Your task to perform on an android device: turn on airplane mode Image 0: 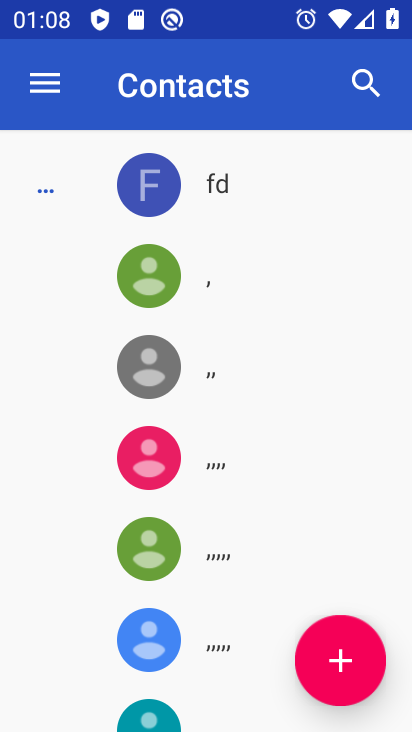
Step 0: press home button
Your task to perform on an android device: turn on airplane mode Image 1: 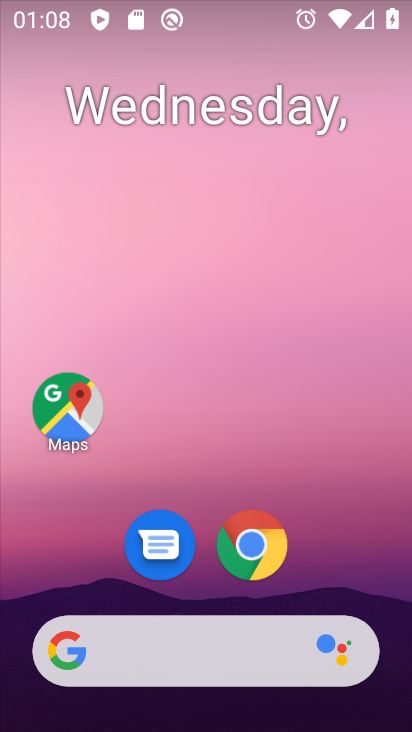
Step 1: drag from (309, 555) to (357, 8)
Your task to perform on an android device: turn on airplane mode Image 2: 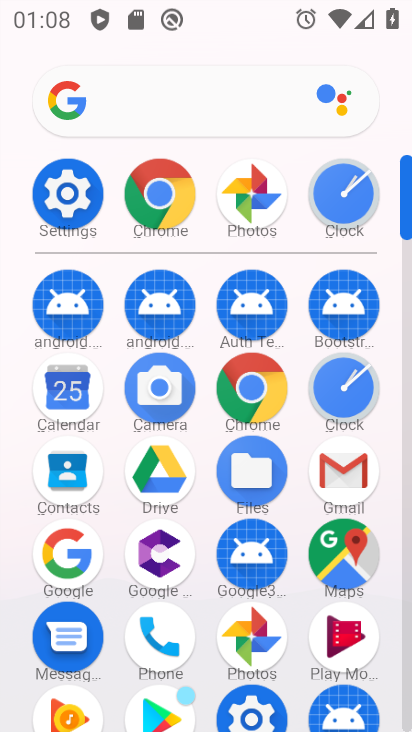
Step 2: click (74, 195)
Your task to perform on an android device: turn on airplane mode Image 3: 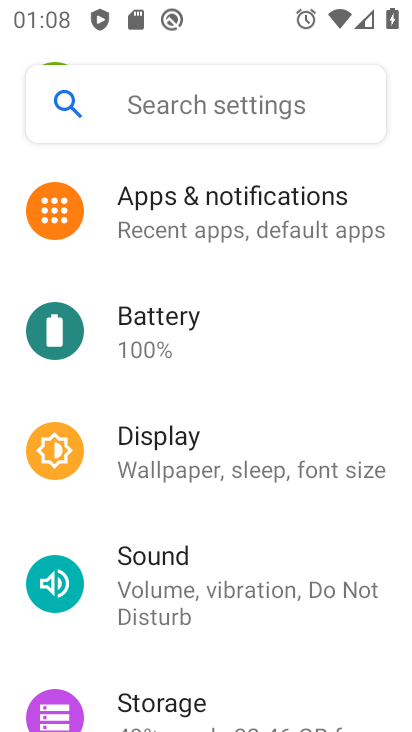
Step 3: drag from (233, 283) to (223, 653)
Your task to perform on an android device: turn on airplane mode Image 4: 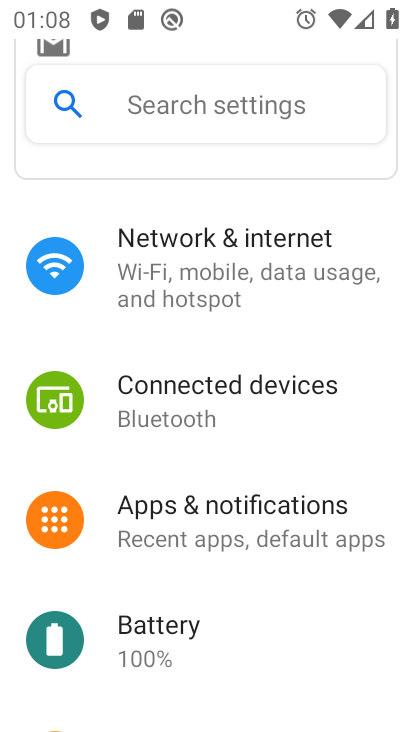
Step 4: click (234, 257)
Your task to perform on an android device: turn on airplane mode Image 5: 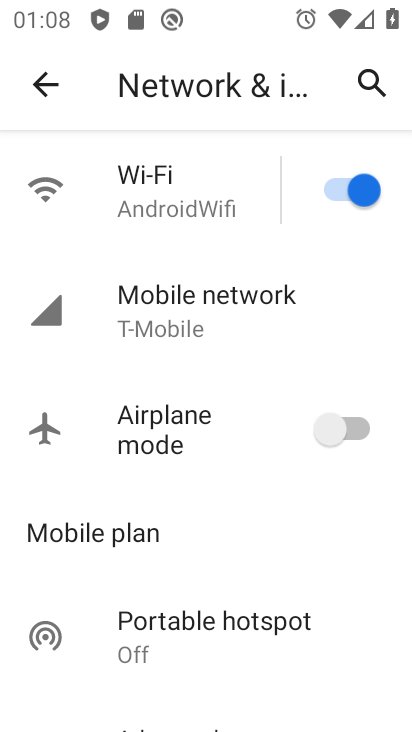
Step 5: click (346, 421)
Your task to perform on an android device: turn on airplane mode Image 6: 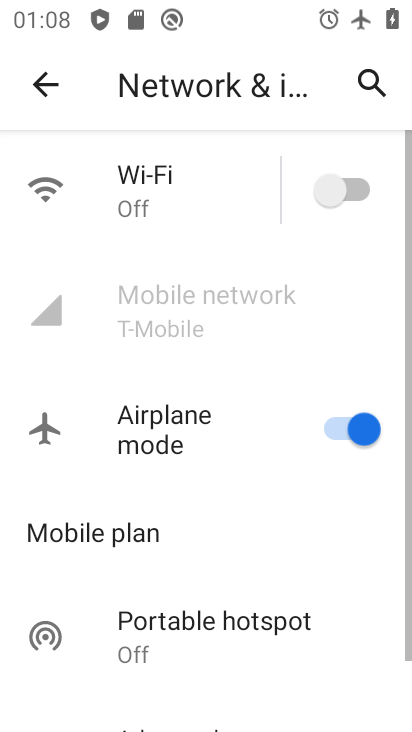
Step 6: task complete